Your task to perform on an android device: set an alarm Image 0: 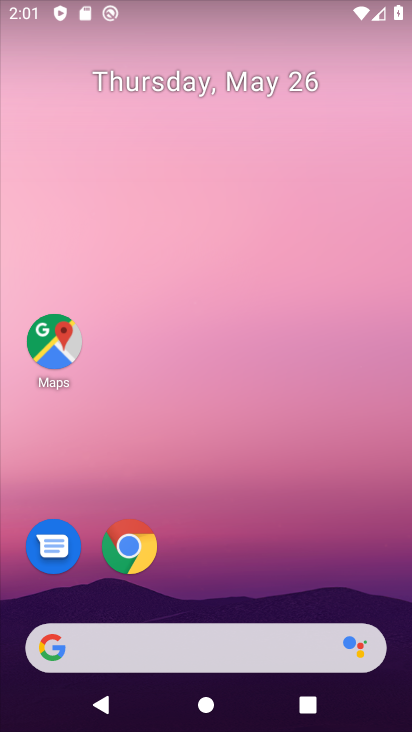
Step 0: drag from (224, 565) to (236, 89)
Your task to perform on an android device: set an alarm Image 1: 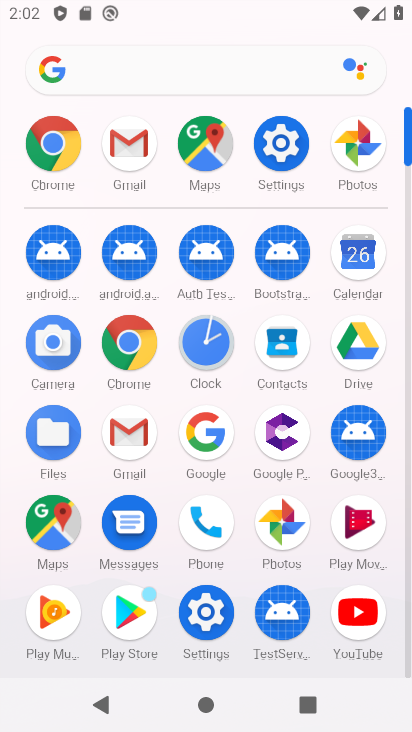
Step 1: click (206, 344)
Your task to perform on an android device: set an alarm Image 2: 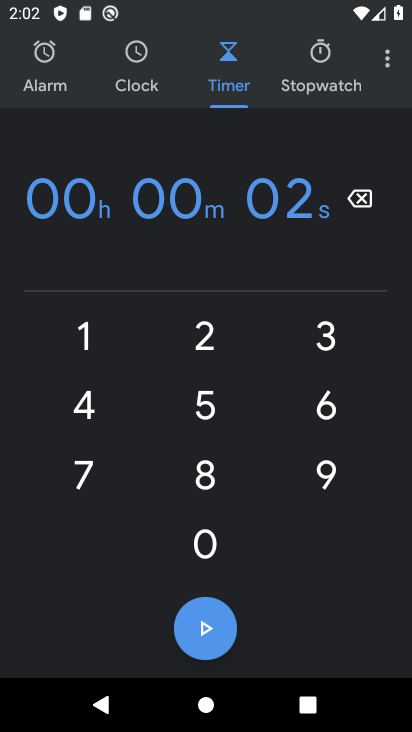
Step 2: click (46, 74)
Your task to perform on an android device: set an alarm Image 3: 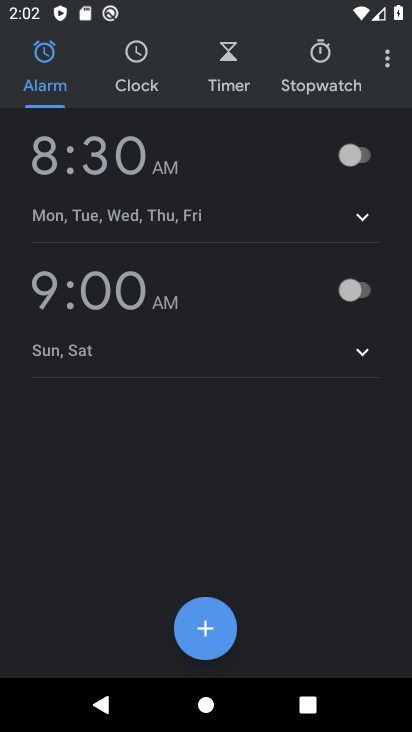
Step 3: click (351, 148)
Your task to perform on an android device: set an alarm Image 4: 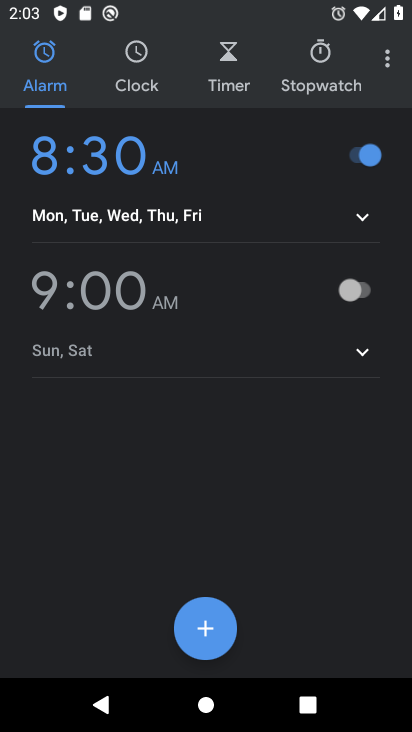
Step 4: task complete